Your task to perform on an android device: Open battery settings Image 0: 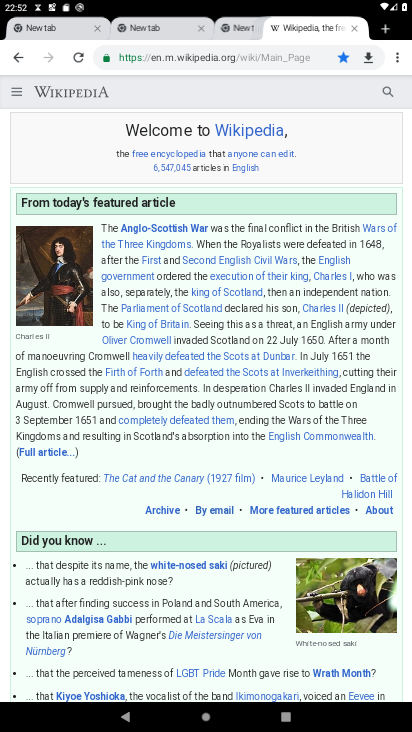
Step 0: press home button
Your task to perform on an android device: Open battery settings Image 1: 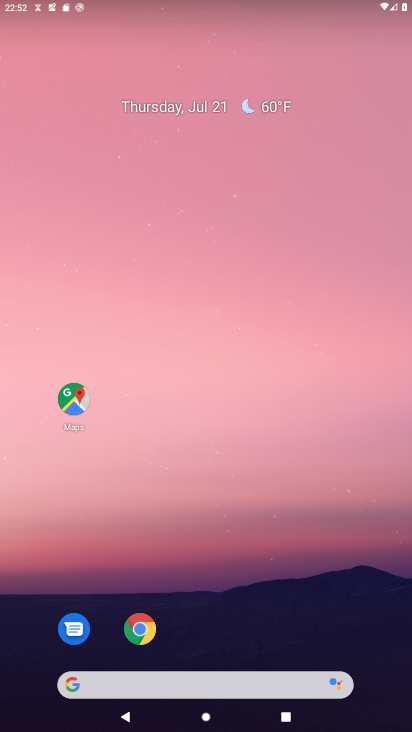
Step 1: drag from (218, 615) to (209, 162)
Your task to perform on an android device: Open battery settings Image 2: 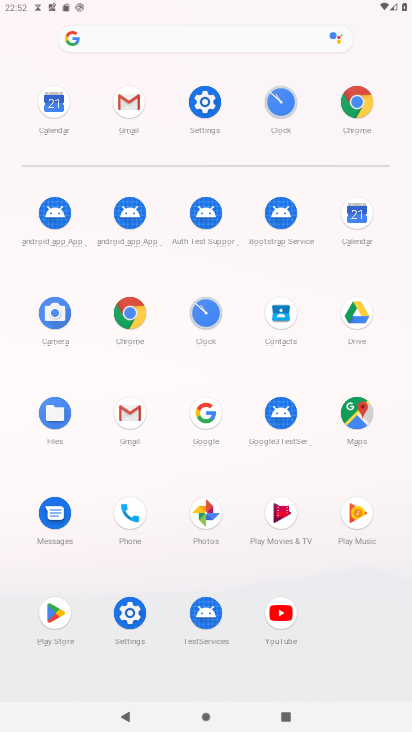
Step 2: click (209, 105)
Your task to perform on an android device: Open battery settings Image 3: 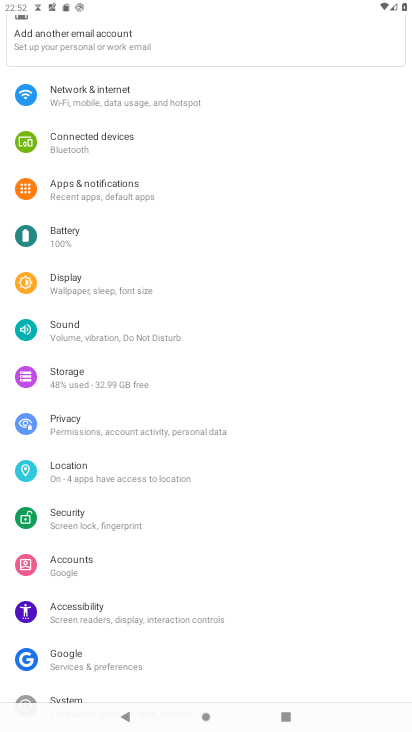
Step 3: click (88, 231)
Your task to perform on an android device: Open battery settings Image 4: 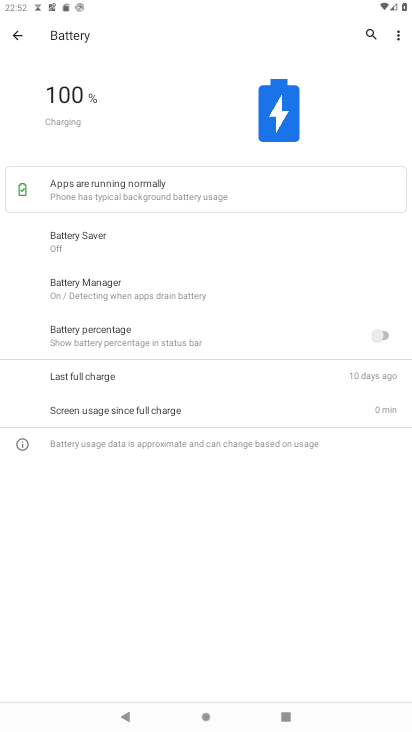
Step 4: task complete